Your task to perform on an android device: allow notifications from all sites in the chrome app Image 0: 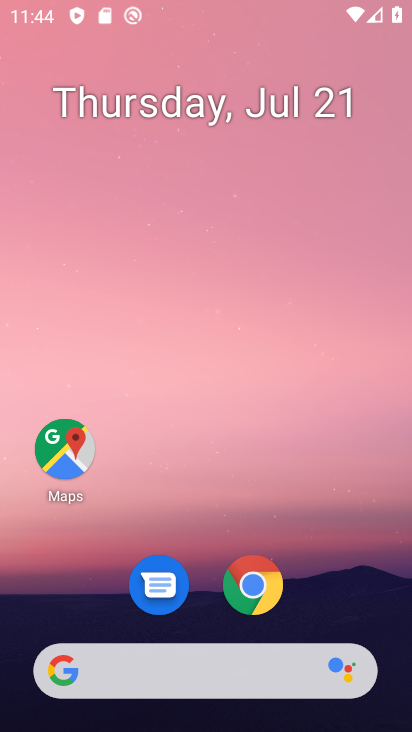
Step 0: press home button
Your task to perform on an android device: allow notifications from all sites in the chrome app Image 1: 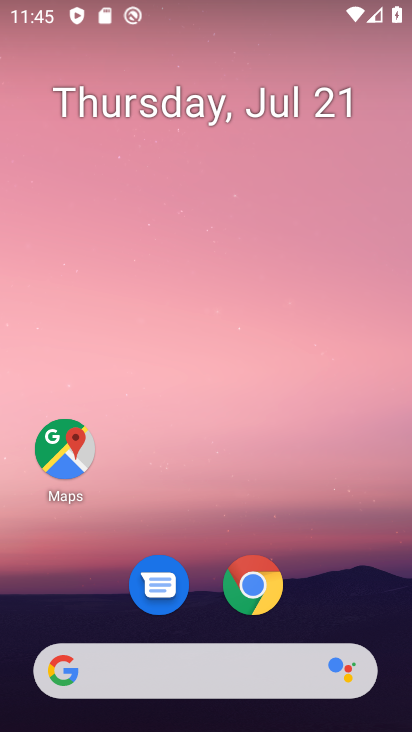
Step 1: click (257, 590)
Your task to perform on an android device: allow notifications from all sites in the chrome app Image 2: 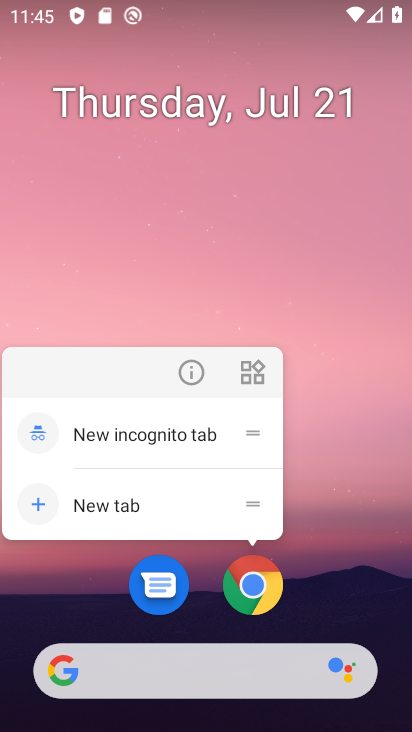
Step 2: click (257, 588)
Your task to perform on an android device: allow notifications from all sites in the chrome app Image 3: 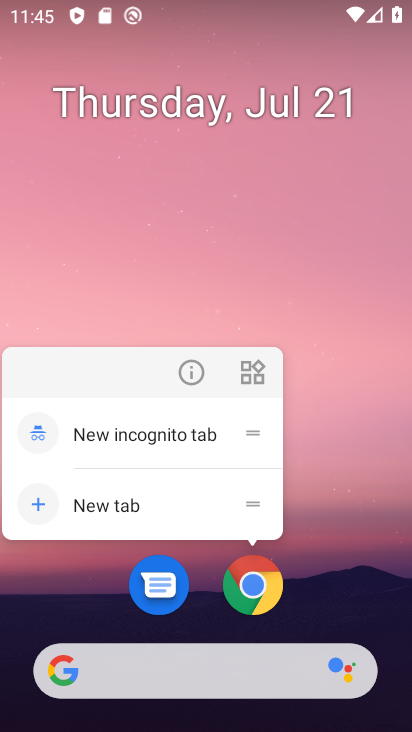
Step 3: click (257, 589)
Your task to perform on an android device: allow notifications from all sites in the chrome app Image 4: 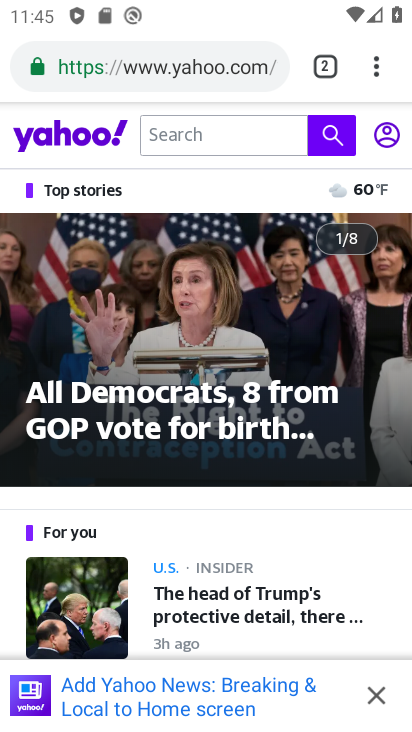
Step 4: drag from (373, 61) to (211, 580)
Your task to perform on an android device: allow notifications from all sites in the chrome app Image 5: 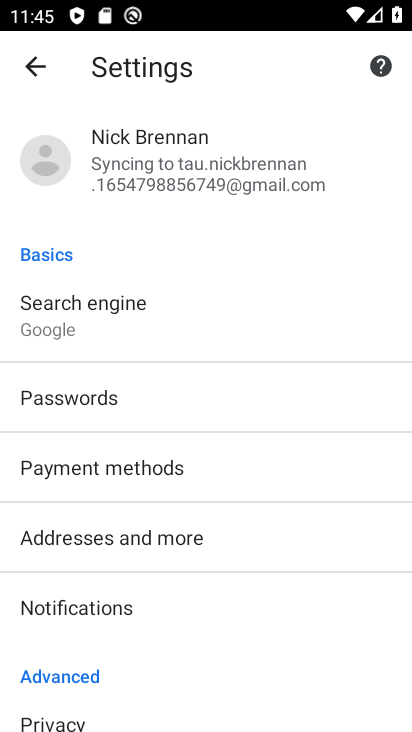
Step 5: drag from (224, 630) to (277, 248)
Your task to perform on an android device: allow notifications from all sites in the chrome app Image 6: 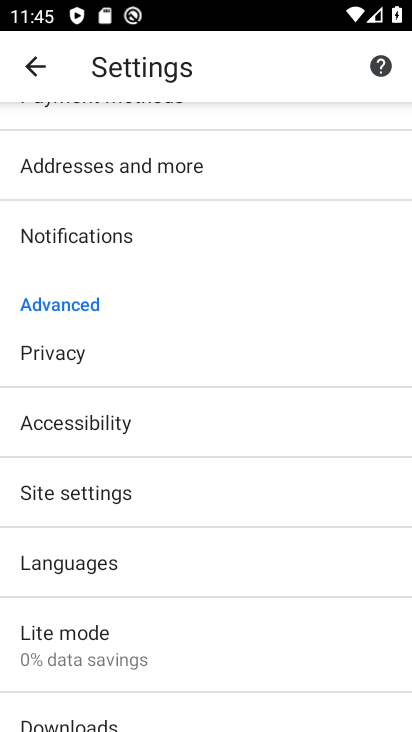
Step 6: click (110, 491)
Your task to perform on an android device: allow notifications from all sites in the chrome app Image 7: 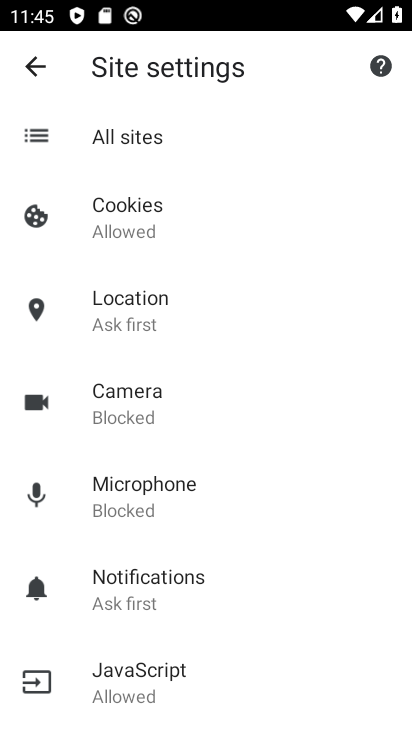
Step 7: click (150, 582)
Your task to perform on an android device: allow notifications from all sites in the chrome app Image 8: 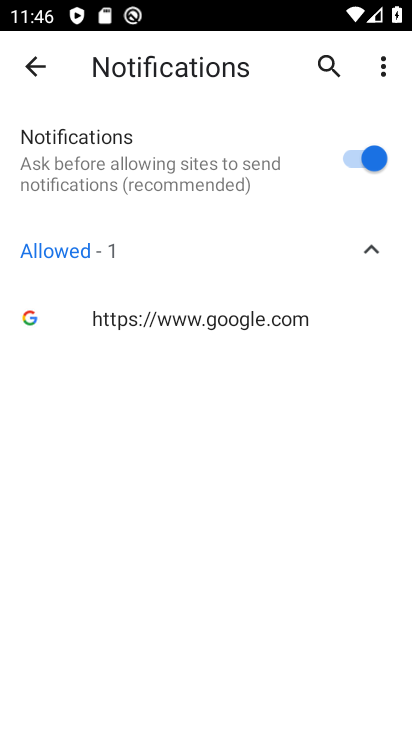
Step 8: task complete